Your task to perform on an android device: turn off notifications in google photos Image 0: 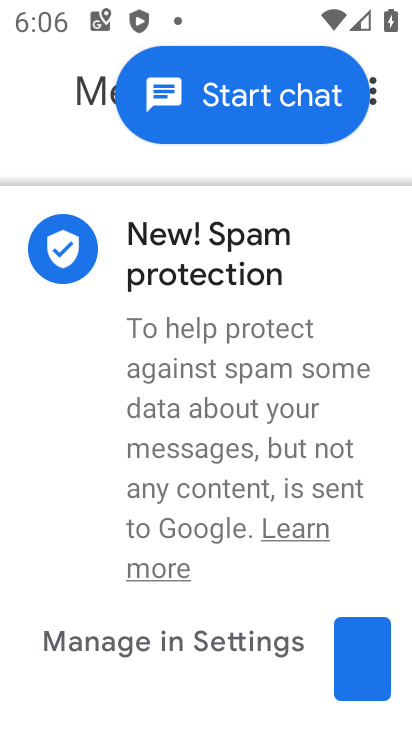
Step 0: press home button
Your task to perform on an android device: turn off notifications in google photos Image 1: 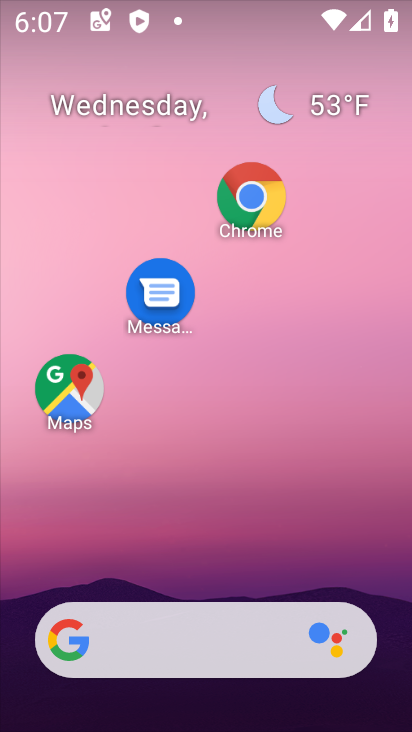
Step 1: drag from (247, 575) to (226, 125)
Your task to perform on an android device: turn off notifications in google photos Image 2: 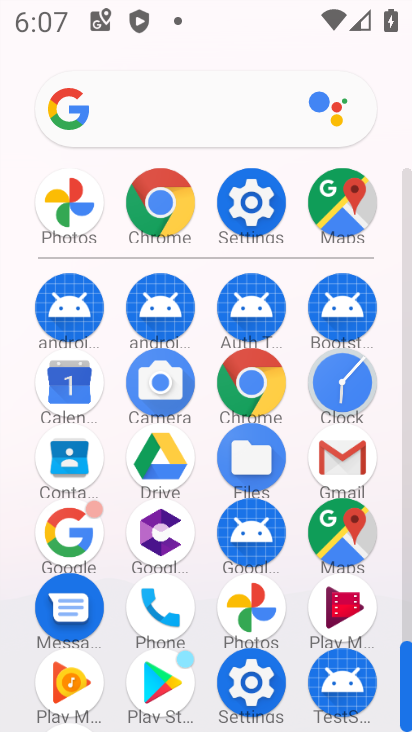
Step 2: click (241, 615)
Your task to perform on an android device: turn off notifications in google photos Image 3: 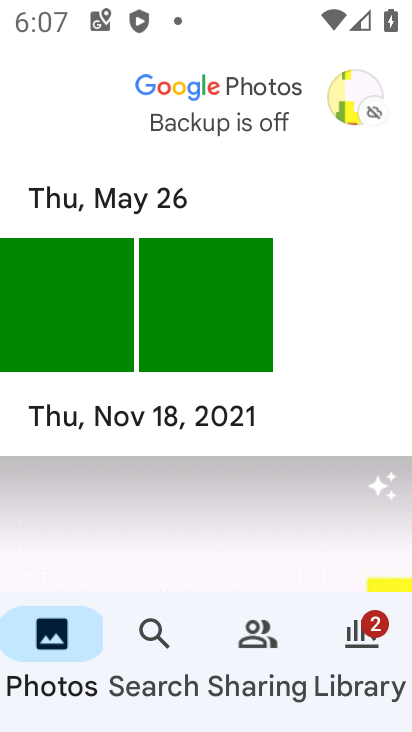
Step 3: click (359, 101)
Your task to perform on an android device: turn off notifications in google photos Image 4: 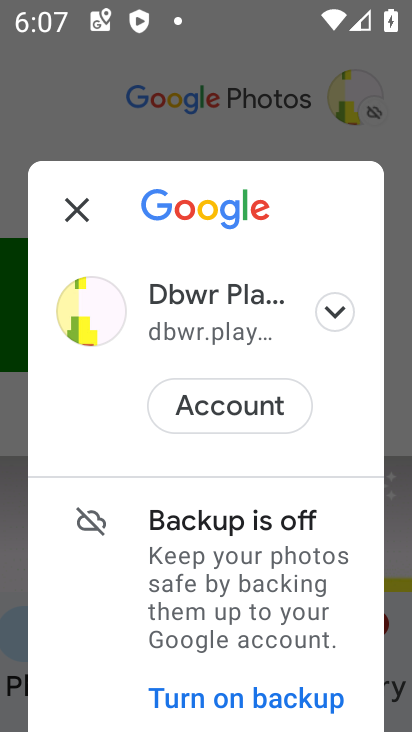
Step 4: drag from (219, 645) to (220, 332)
Your task to perform on an android device: turn off notifications in google photos Image 5: 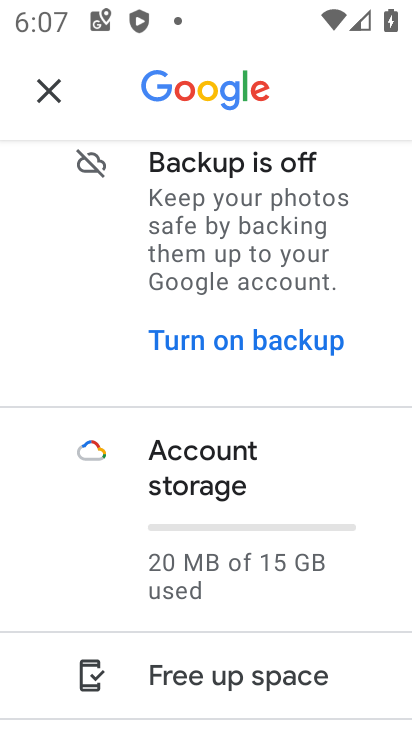
Step 5: drag from (221, 630) to (237, 399)
Your task to perform on an android device: turn off notifications in google photos Image 6: 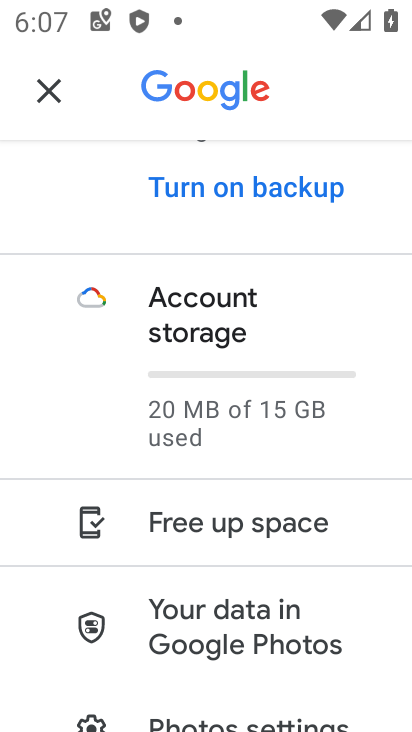
Step 6: drag from (251, 680) to (257, 429)
Your task to perform on an android device: turn off notifications in google photos Image 7: 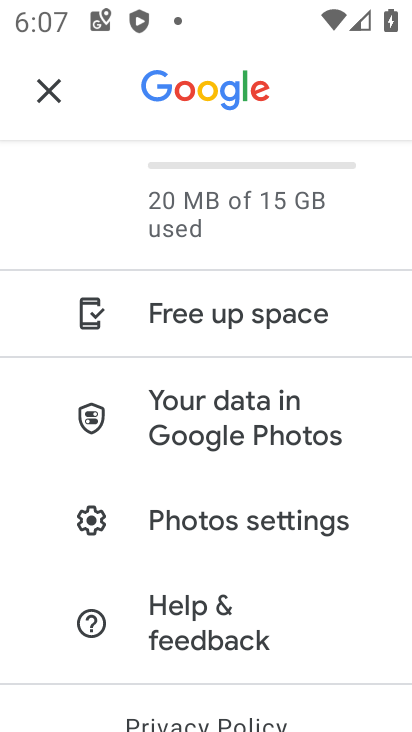
Step 7: click (231, 531)
Your task to perform on an android device: turn off notifications in google photos Image 8: 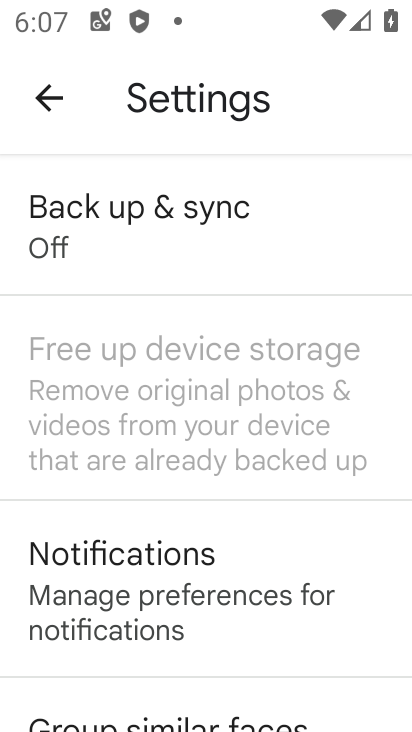
Step 8: click (174, 568)
Your task to perform on an android device: turn off notifications in google photos Image 9: 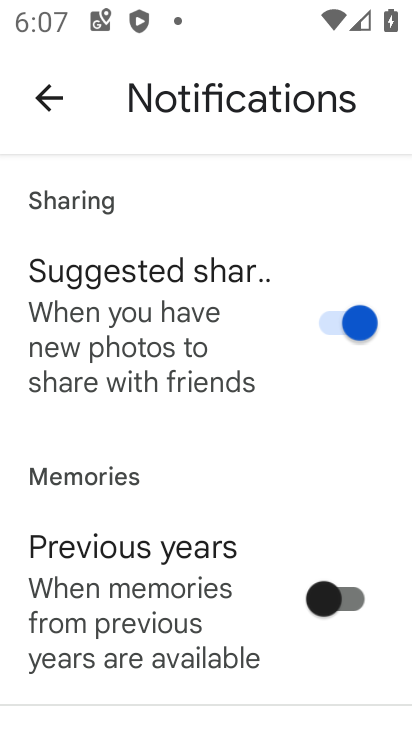
Step 9: drag from (233, 553) to (226, 340)
Your task to perform on an android device: turn off notifications in google photos Image 10: 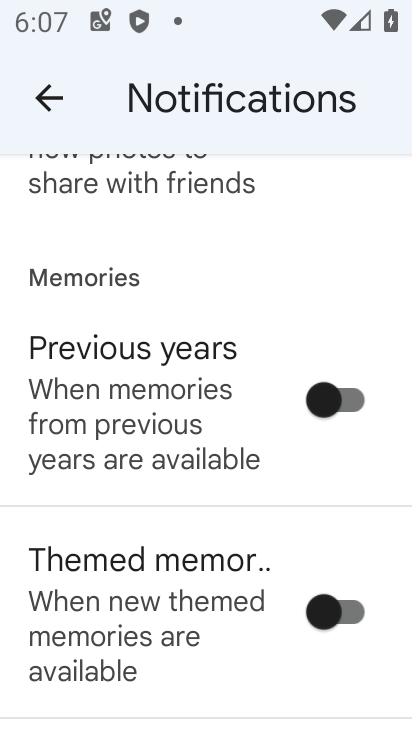
Step 10: drag from (246, 277) to (250, 613)
Your task to perform on an android device: turn off notifications in google photos Image 11: 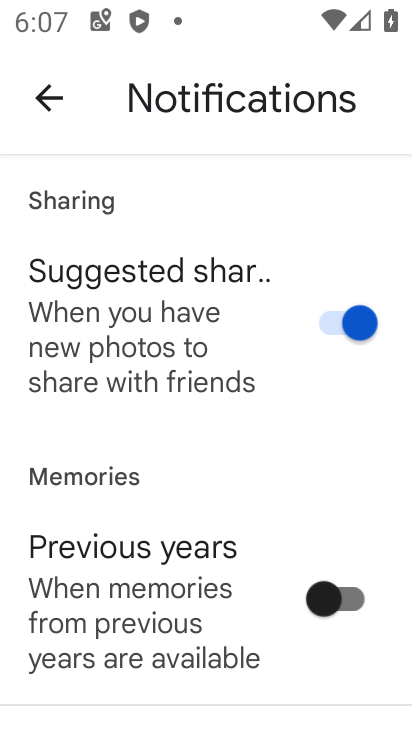
Step 11: click (332, 326)
Your task to perform on an android device: turn off notifications in google photos Image 12: 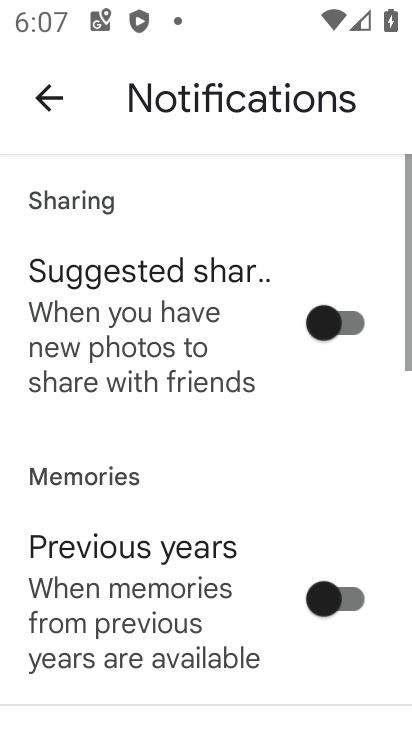
Step 12: drag from (216, 576) to (206, 299)
Your task to perform on an android device: turn off notifications in google photos Image 13: 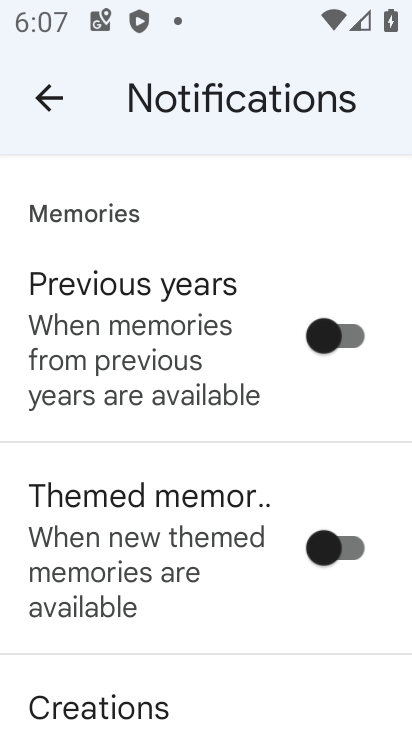
Step 13: drag from (263, 639) to (241, 420)
Your task to perform on an android device: turn off notifications in google photos Image 14: 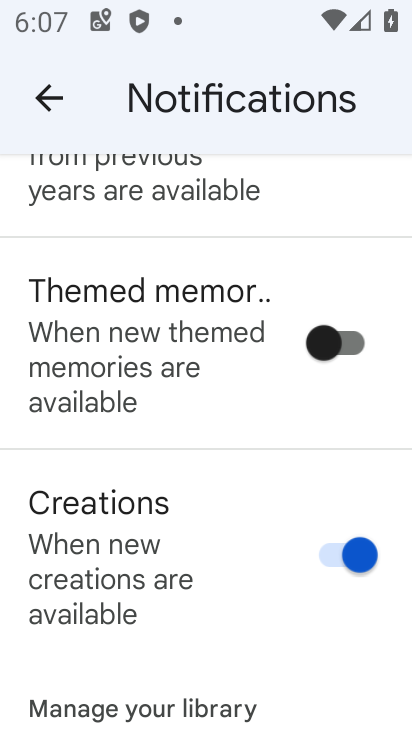
Step 14: click (329, 559)
Your task to perform on an android device: turn off notifications in google photos Image 15: 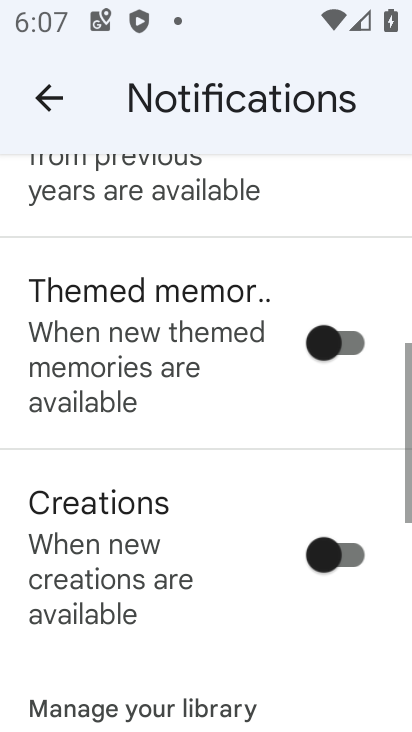
Step 15: task complete